Your task to perform on an android device: toggle javascript in the chrome app Image 0: 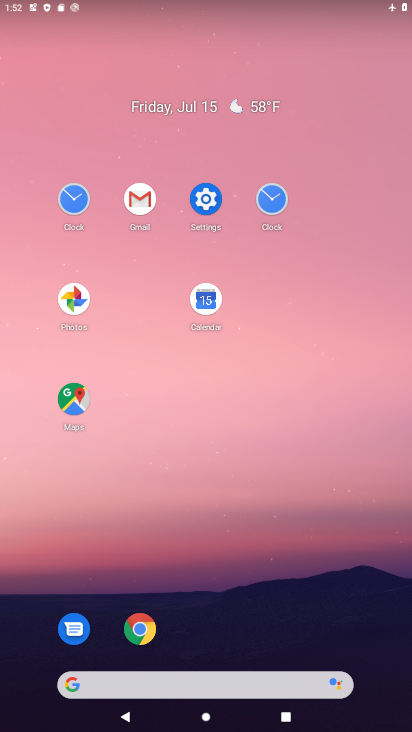
Step 0: click (144, 629)
Your task to perform on an android device: toggle javascript in the chrome app Image 1: 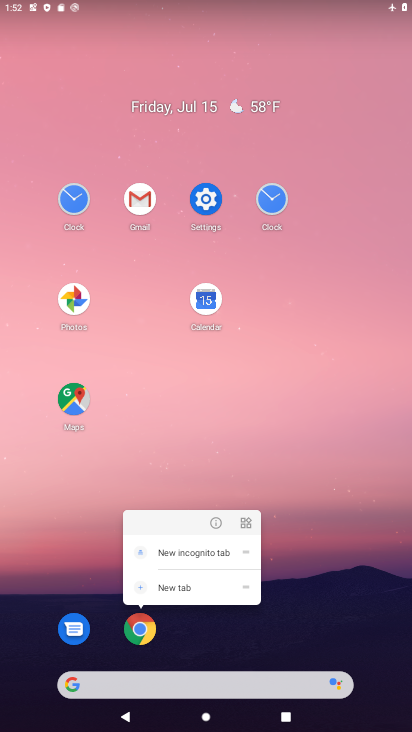
Step 1: click (147, 635)
Your task to perform on an android device: toggle javascript in the chrome app Image 2: 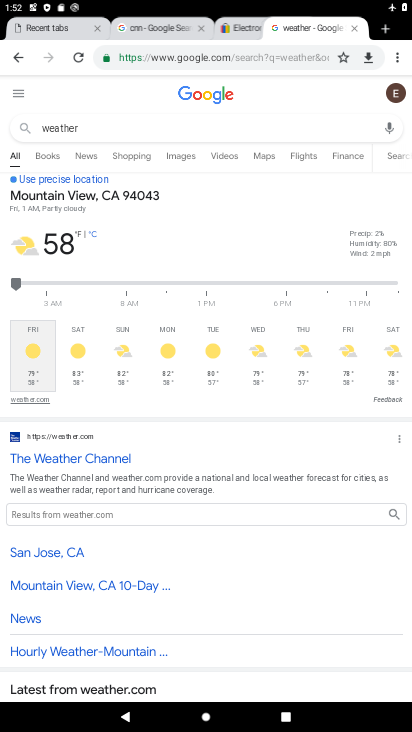
Step 2: click (398, 59)
Your task to perform on an android device: toggle javascript in the chrome app Image 3: 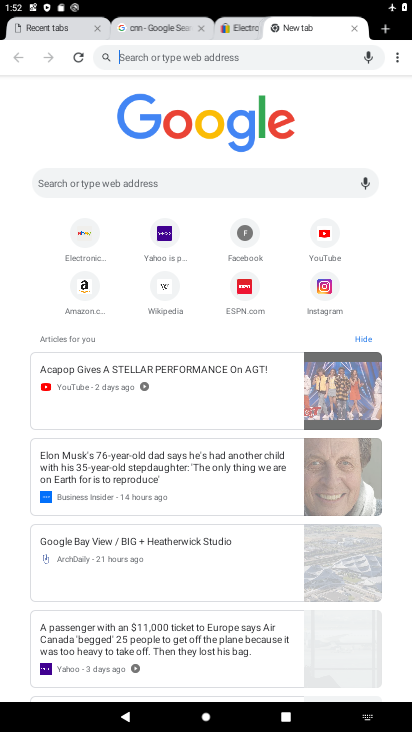
Step 3: click (402, 60)
Your task to perform on an android device: toggle javascript in the chrome app Image 4: 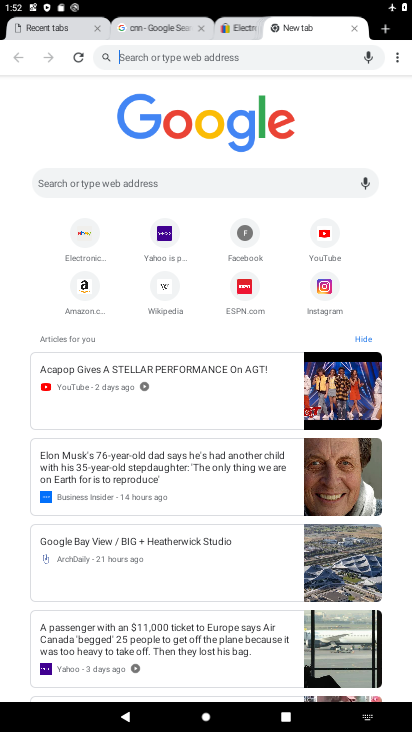
Step 4: click (399, 58)
Your task to perform on an android device: toggle javascript in the chrome app Image 5: 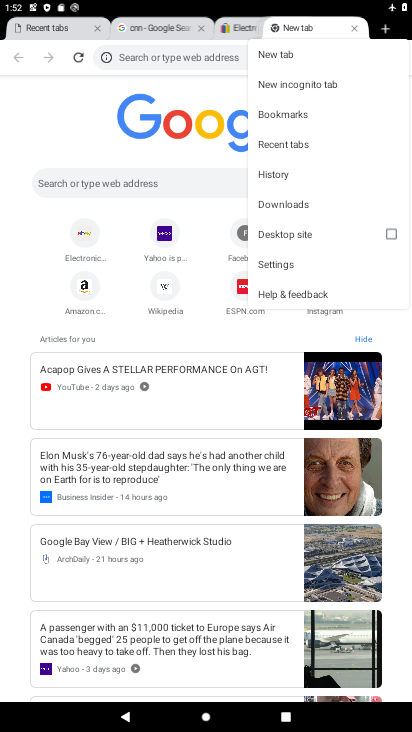
Step 5: click (277, 256)
Your task to perform on an android device: toggle javascript in the chrome app Image 6: 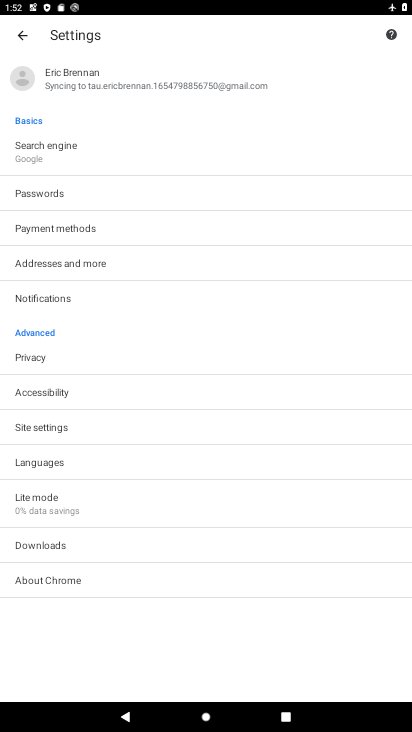
Step 6: click (97, 429)
Your task to perform on an android device: toggle javascript in the chrome app Image 7: 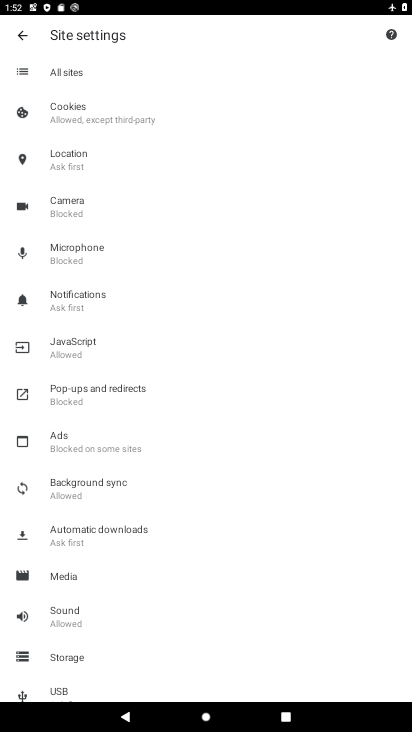
Step 7: click (117, 350)
Your task to perform on an android device: toggle javascript in the chrome app Image 8: 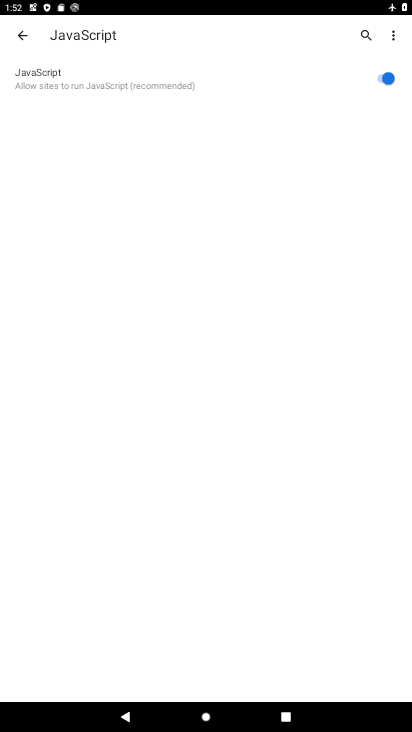
Step 8: click (384, 90)
Your task to perform on an android device: toggle javascript in the chrome app Image 9: 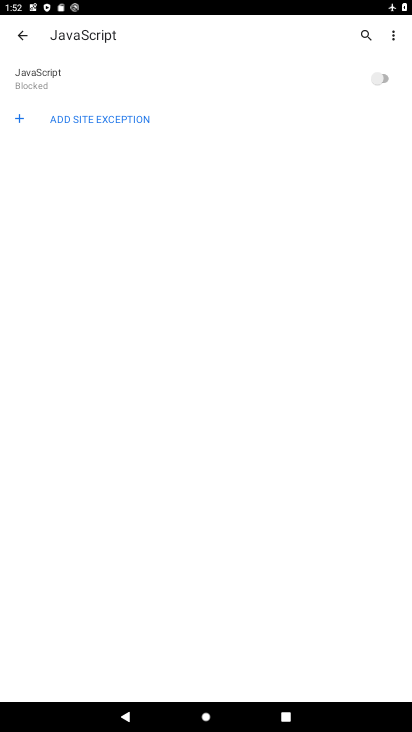
Step 9: task complete